Your task to perform on an android device: uninstall "Google Translate" Image 0: 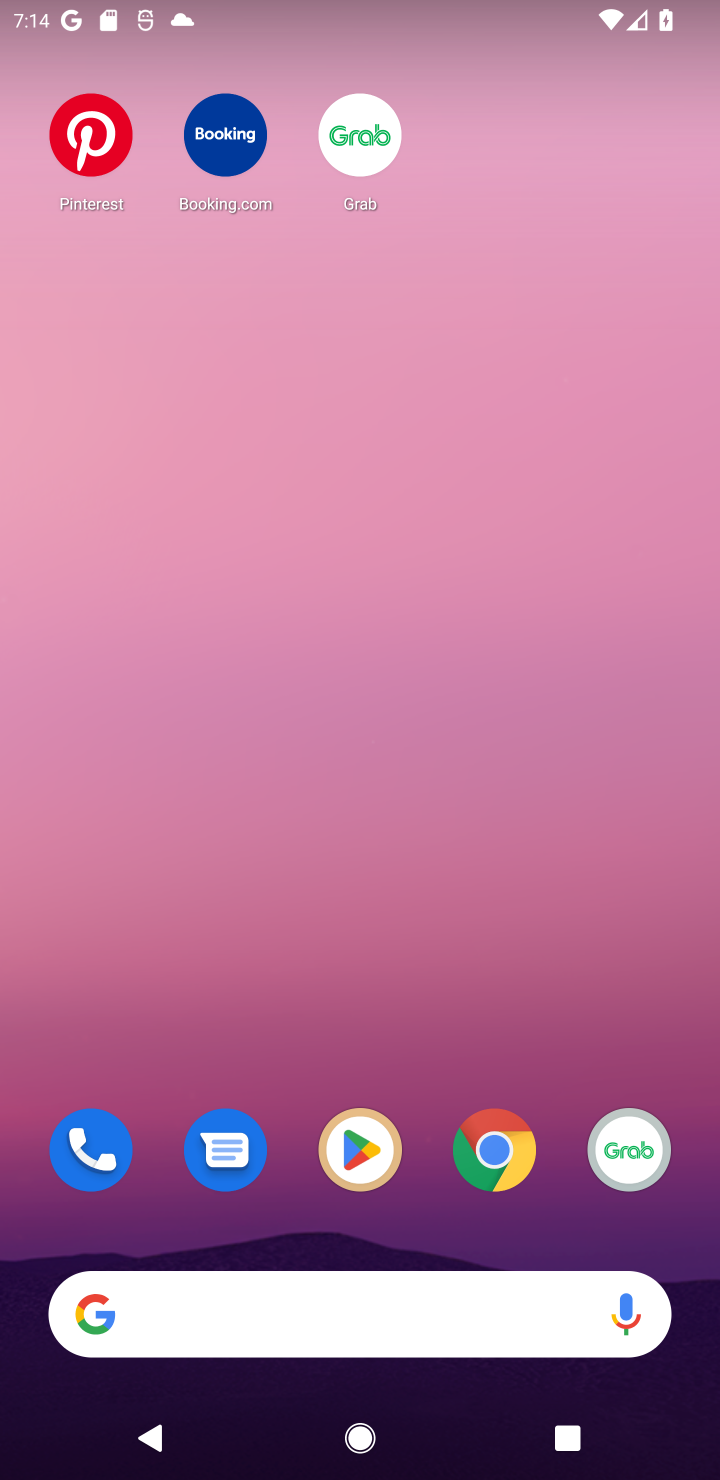
Step 0: drag from (356, 1017) to (274, 152)
Your task to perform on an android device: uninstall "Google Translate" Image 1: 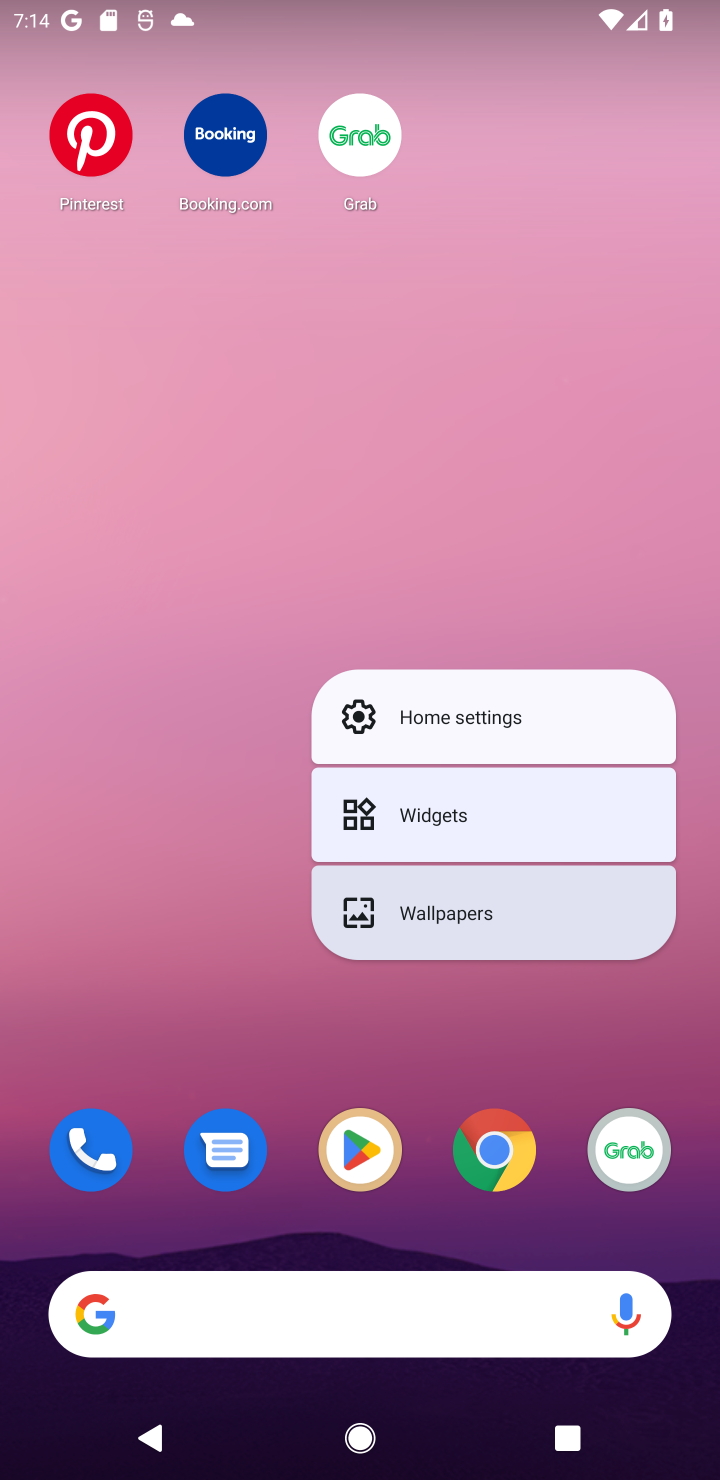
Step 1: click (415, 1122)
Your task to perform on an android device: uninstall "Google Translate" Image 2: 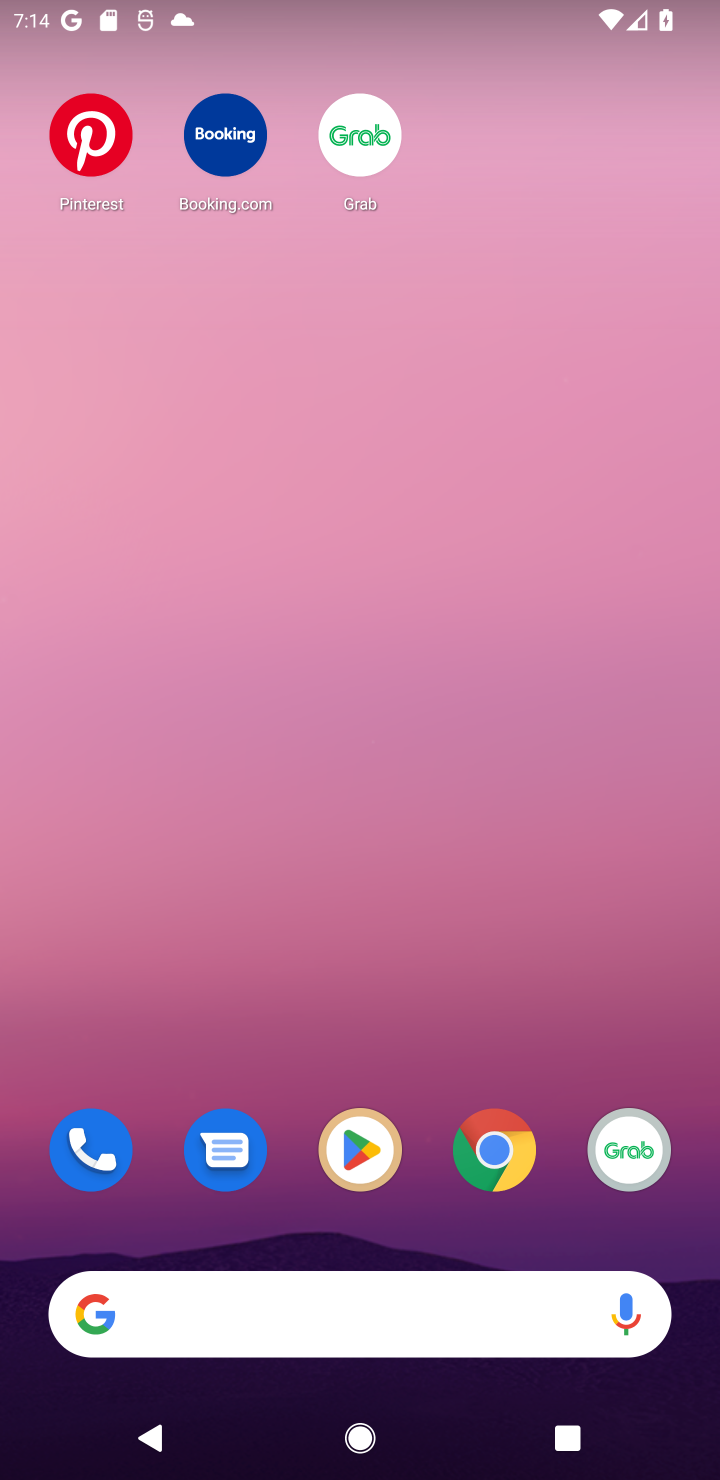
Step 2: click (340, 1123)
Your task to perform on an android device: uninstall "Google Translate" Image 3: 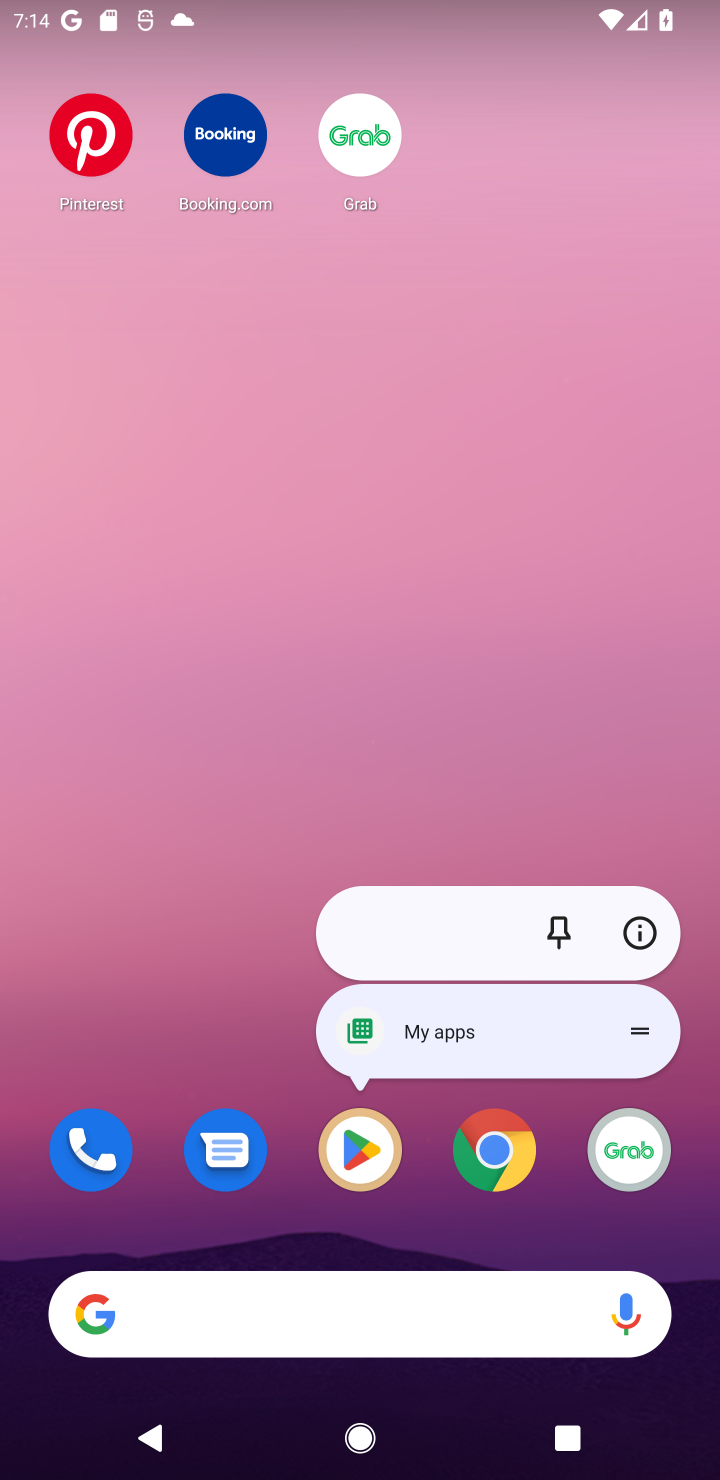
Step 3: click (347, 1123)
Your task to perform on an android device: uninstall "Google Translate" Image 4: 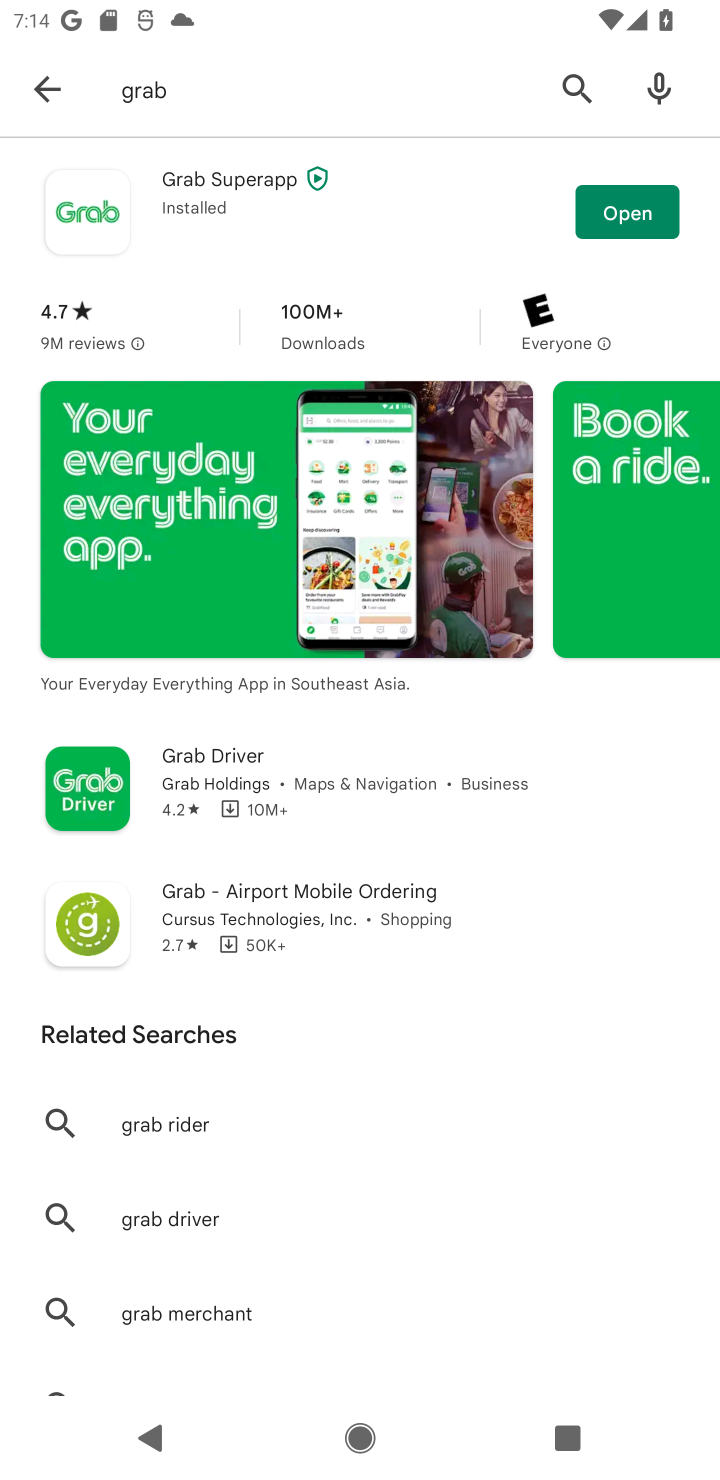
Step 4: click (48, 73)
Your task to perform on an android device: uninstall "Google Translate" Image 5: 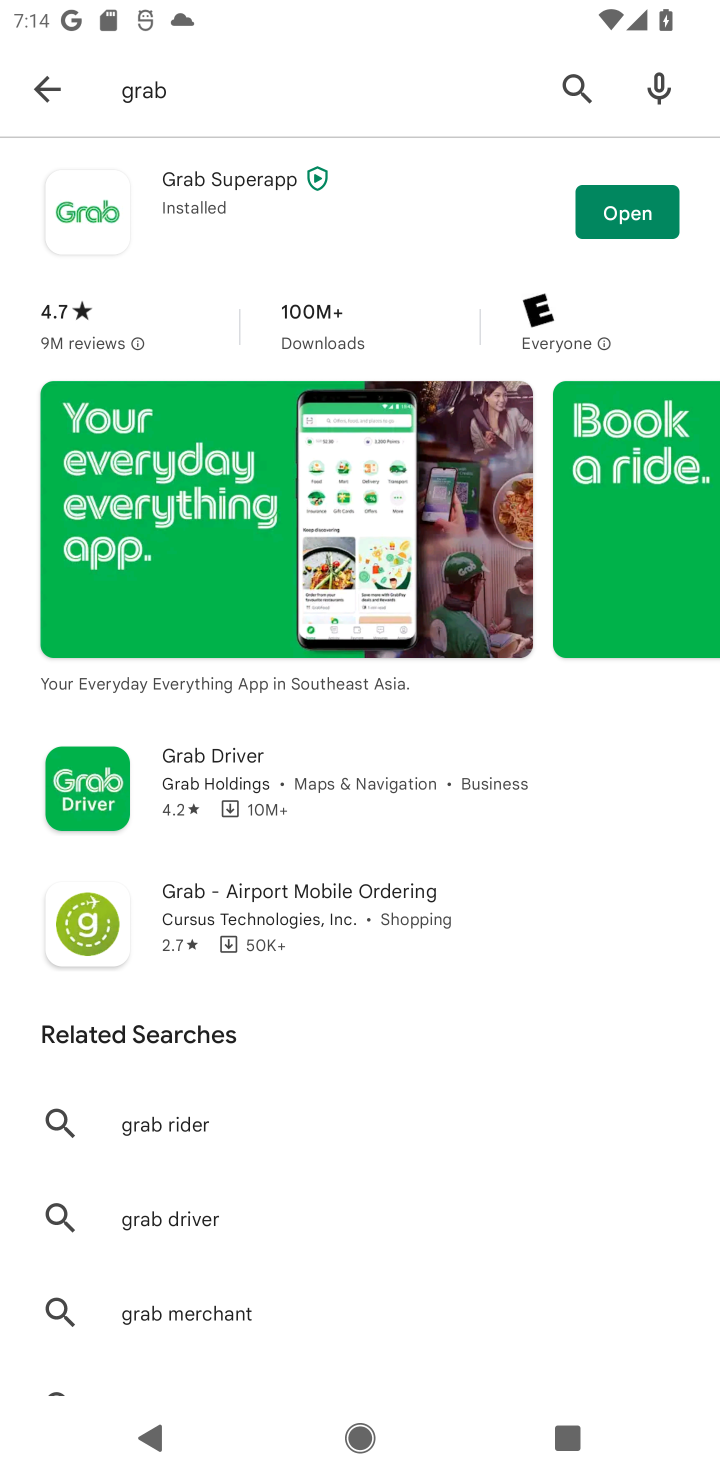
Step 5: click (48, 103)
Your task to perform on an android device: uninstall "Google Translate" Image 6: 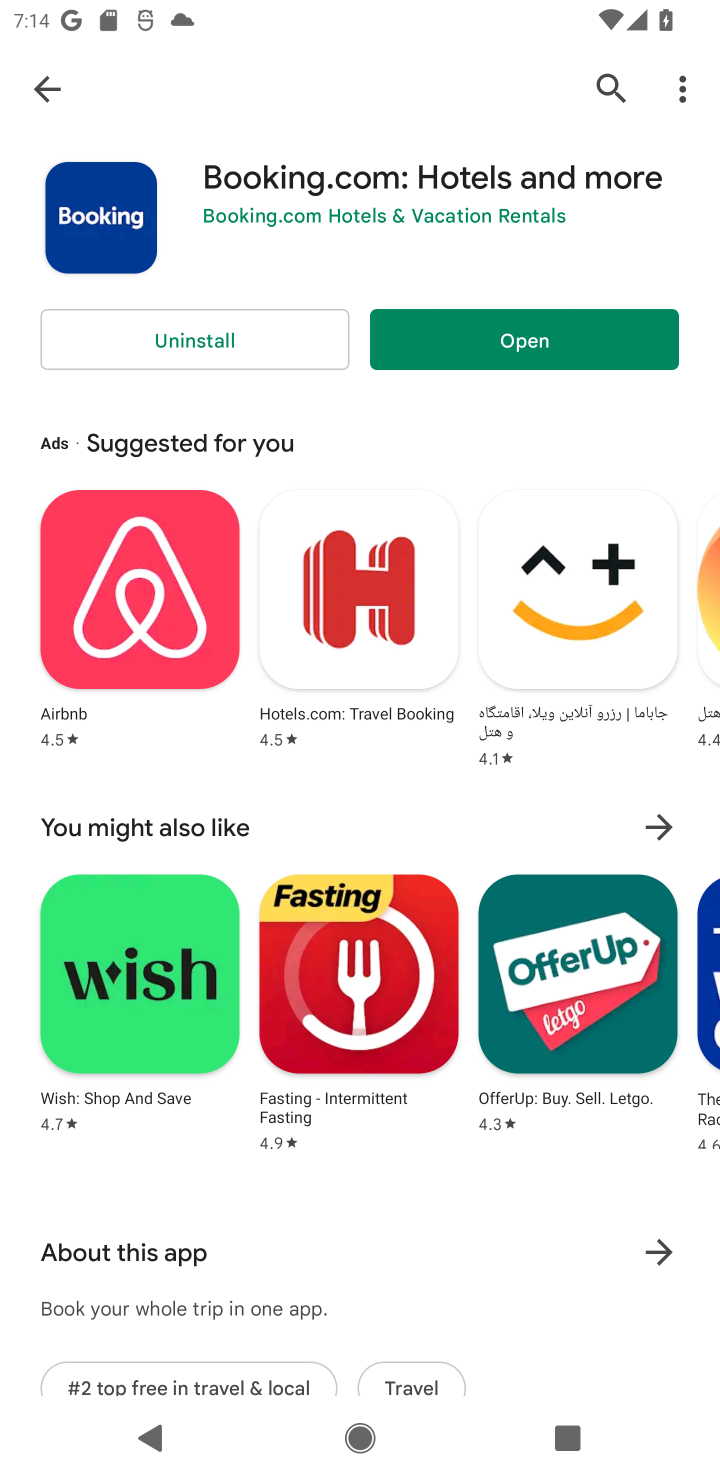
Step 6: click (602, 96)
Your task to perform on an android device: uninstall "Google Translate" Image 7: 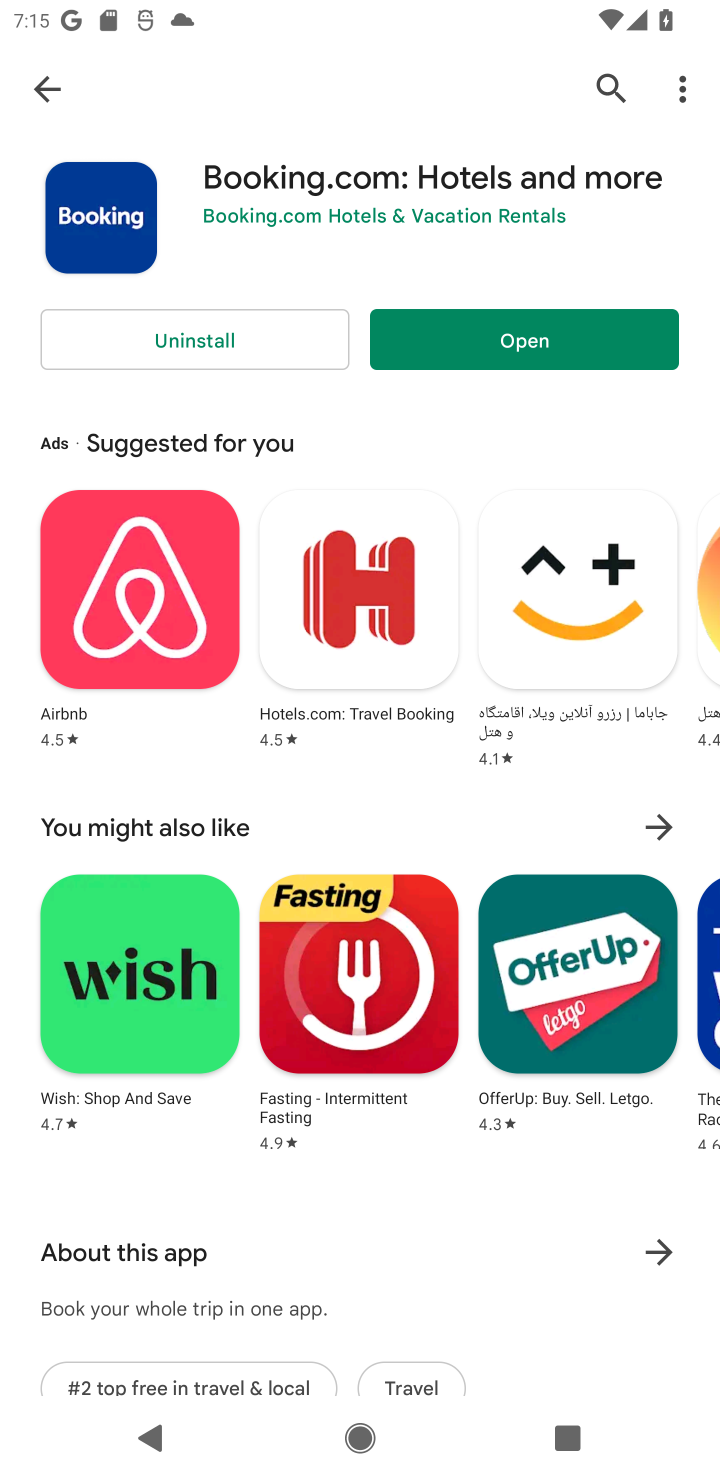
Step 7: click (603, 71)
Your task to perform on an android device: uninstall "Google Translate" Image 8: 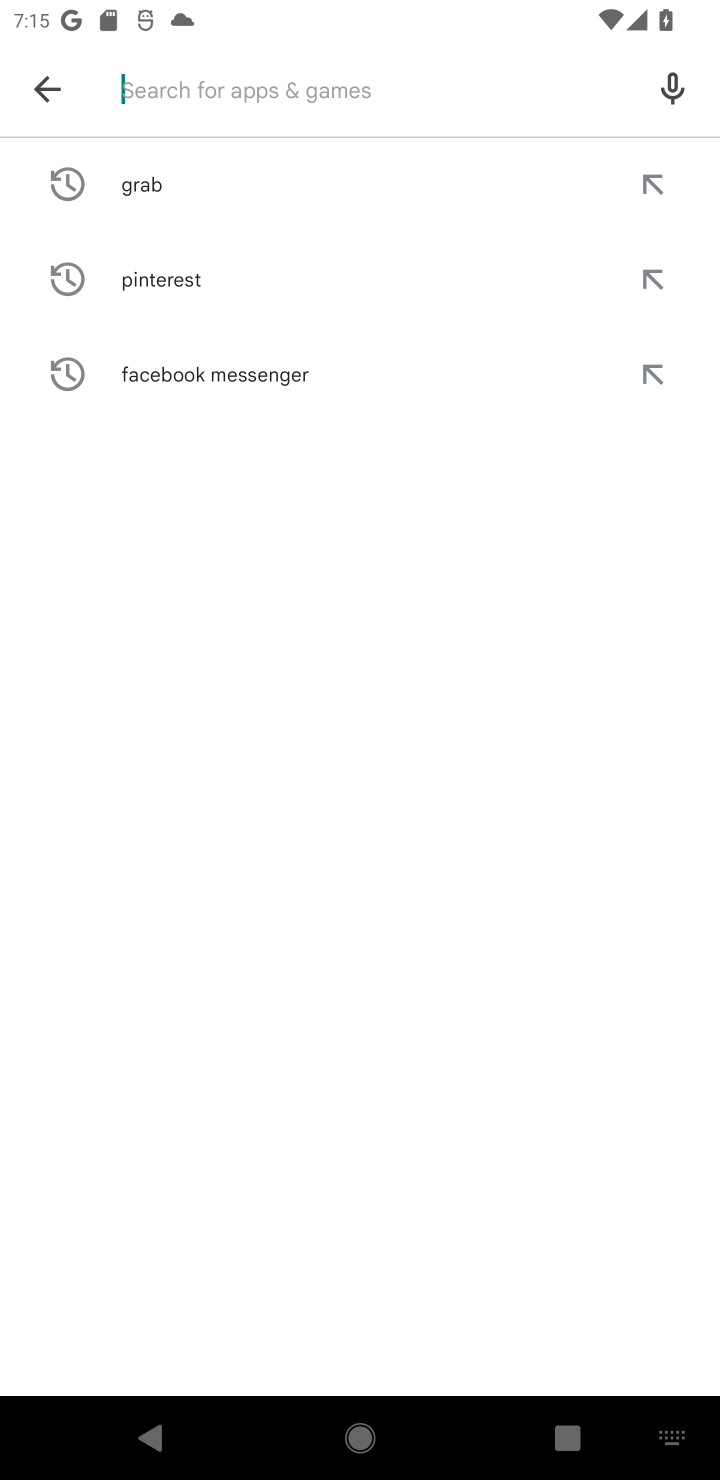
Step 8: type "Google Translate"
Your task to perform on an android device: uninstall "Google Translate" Image 9: 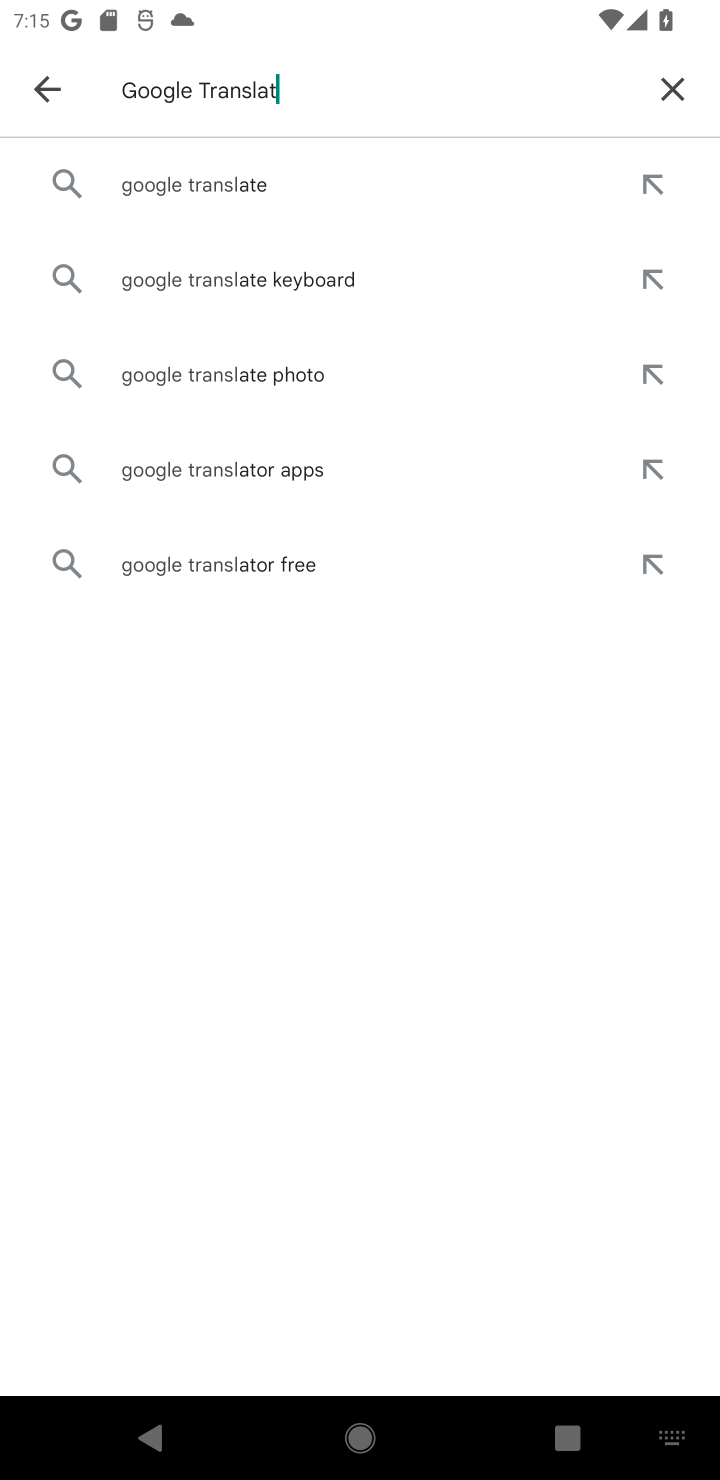
Step 9: type ""
Your task to perform on an android device: uninstall "Google Translate" Image 10: 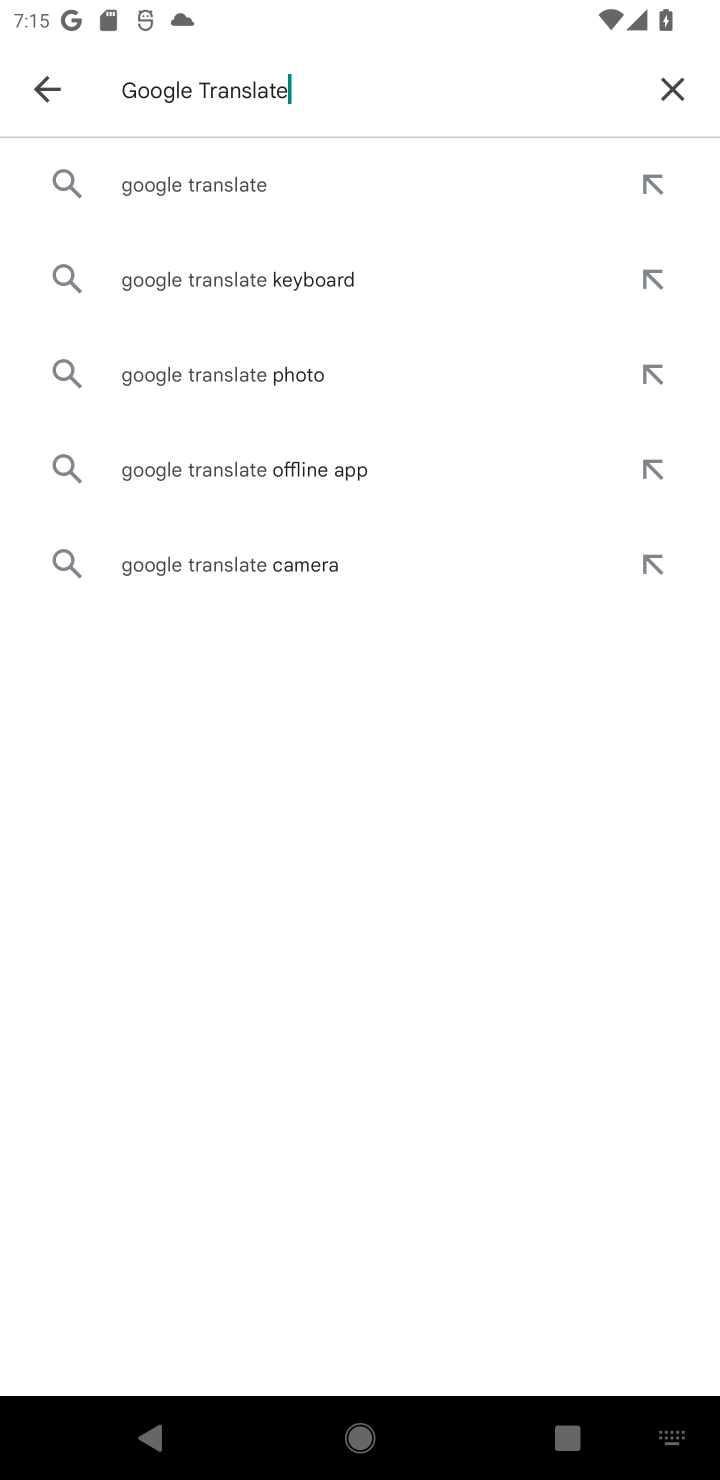
Step 10: click (213, 201)
Your task to perform on an android device: uninstall "Google Translate" Image 11: 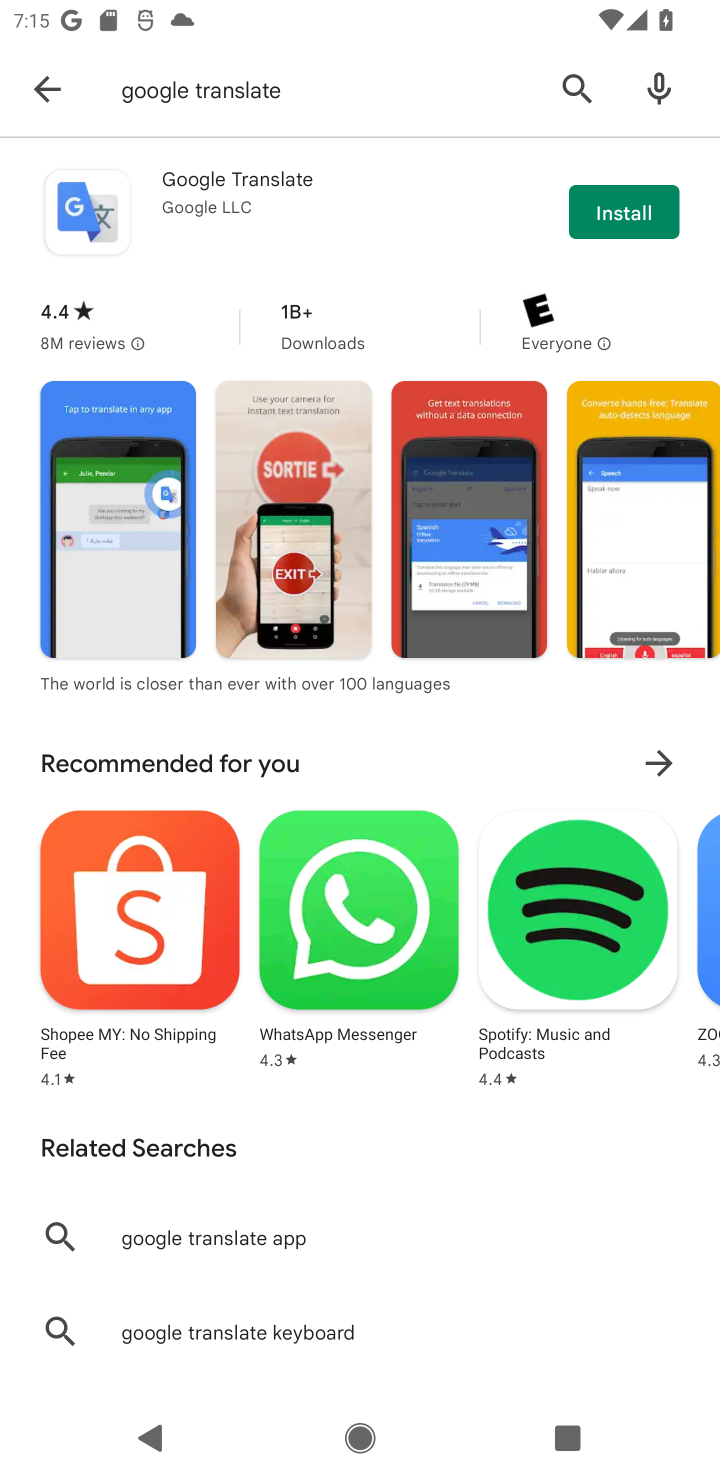
Step 11: click (257, 179)
Your task to perform on an android device: uninstall "Google Translate" Image 12: 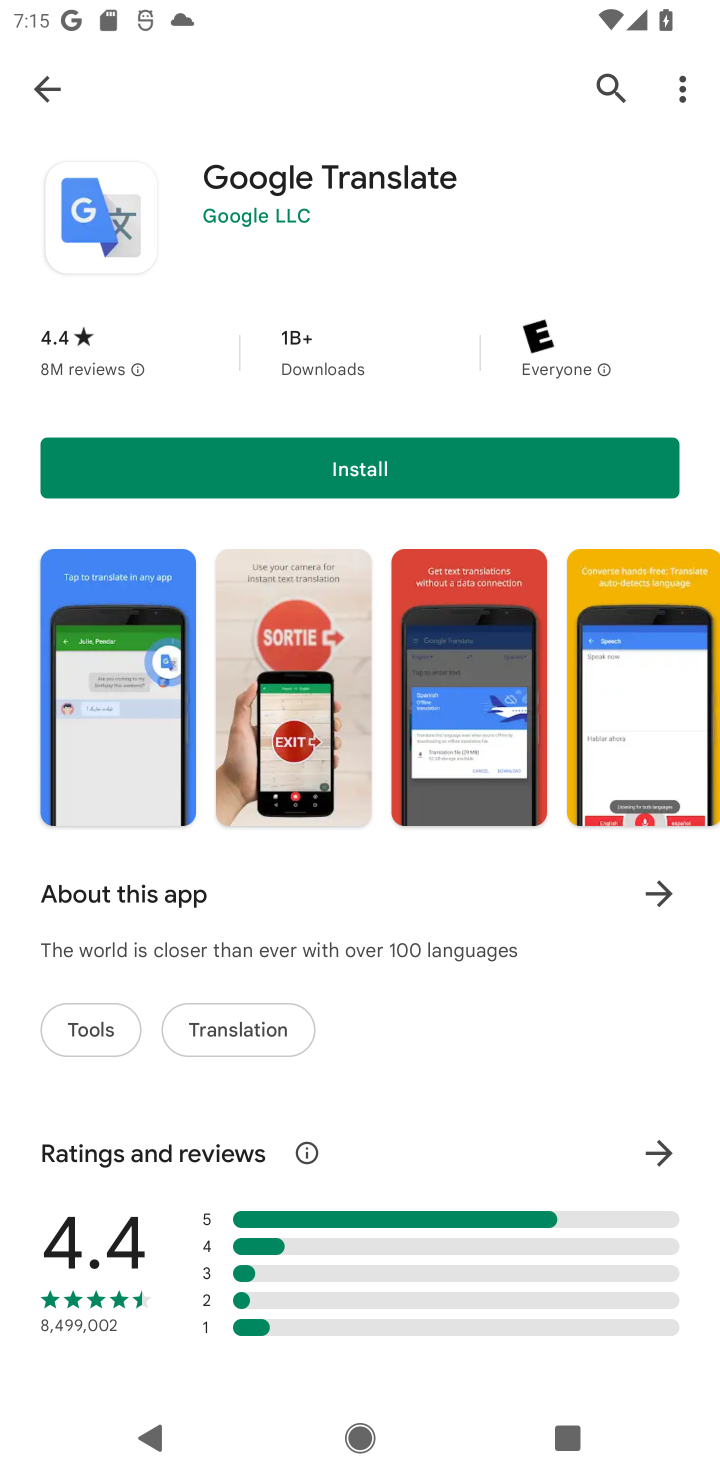
Step 12: task complete